Your task to perform on an android device: turn on location history Image 0: 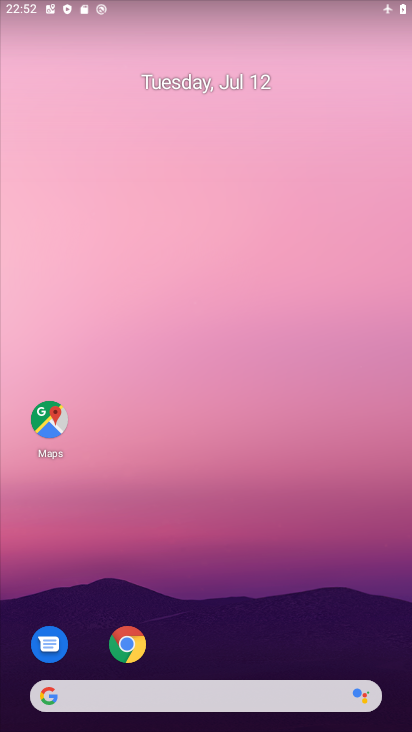
Step 0: drag from (214, 718) to (312, 32)
Your task to perform on an android device: turn on location history Image 1: 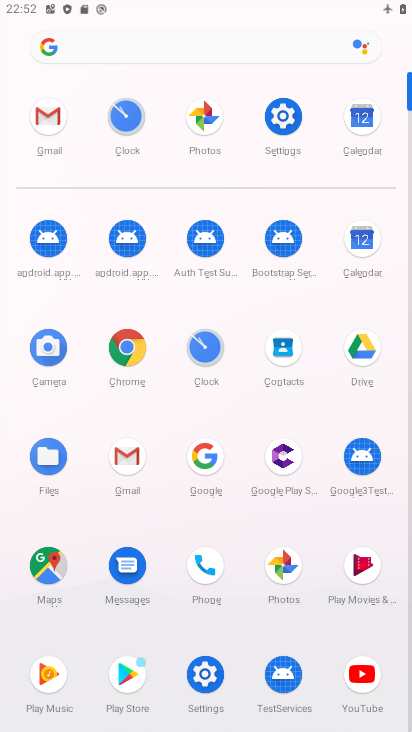
Step 1: click (32, 559)
Your task to perform on an android device: turn on location history Image 2: 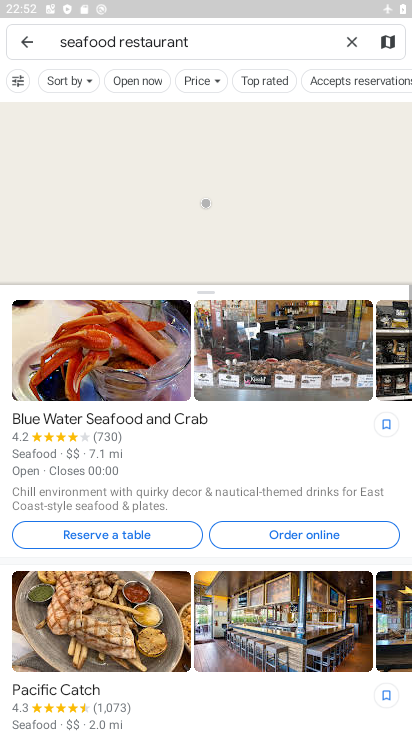
Step 2: click (27, 34)
Your task to perform on an android device: turn on location history Image 3: 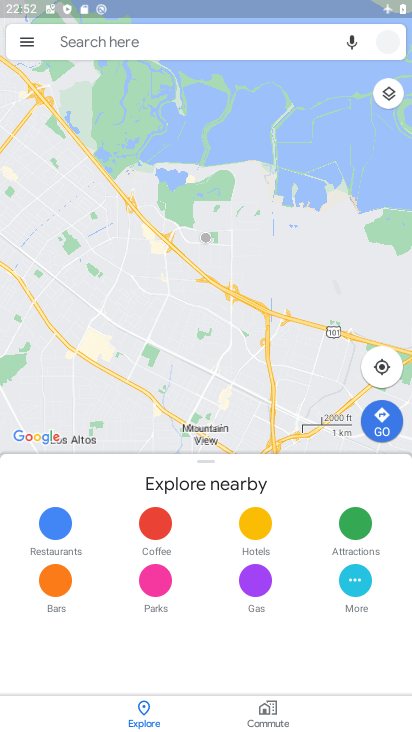
Step 3: click (27, 42)
Your task to perform on an android device: turn on location history Image 4: 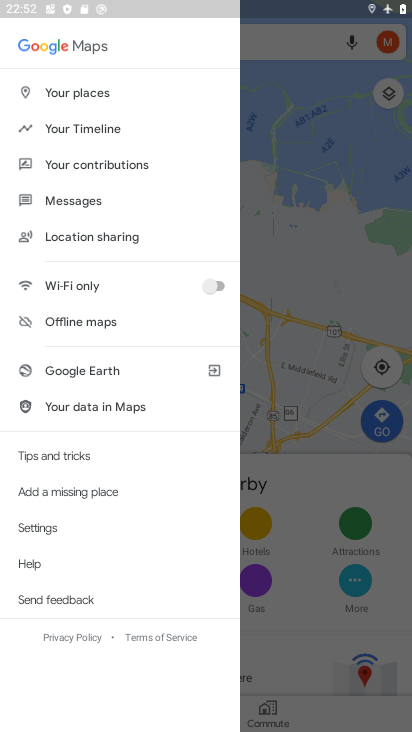
Step 4: click (83, 127)
Your task to perform on an android device: turn on location history Image 5: 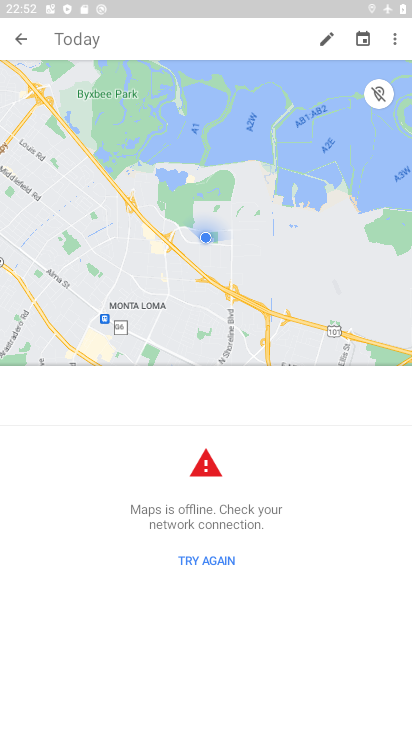
Step 5: task complete